Your task to perform on an android device: Go to Yahoo.com Image 0: 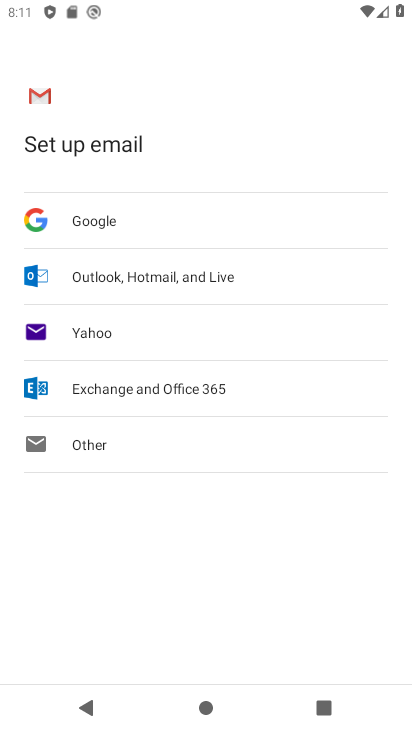
Step 0: press home button
Your task to perform on an android device: Go to Yahoo.com Image 1: 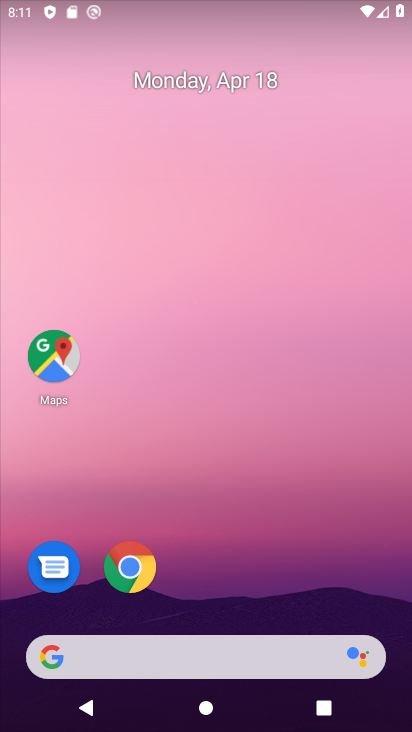
Step 1: drag from (262, 567) to (282, 80)
Your task to perform on an android device: Go to Yahoo.com Image 2: 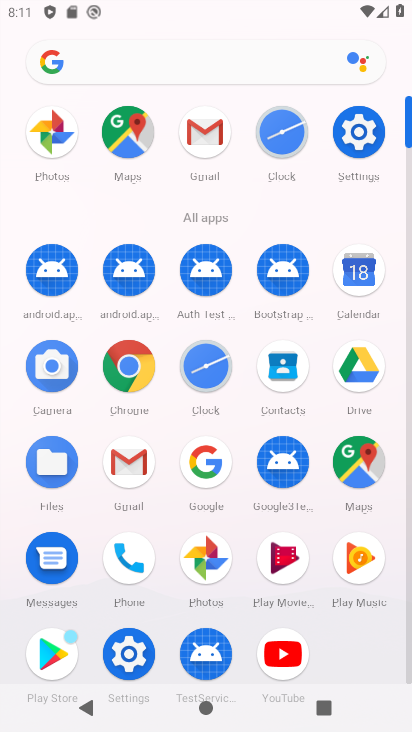
Step 2: click (127, 373)
Your task to perform on an android device: Go to Yahoo.com Image 3: 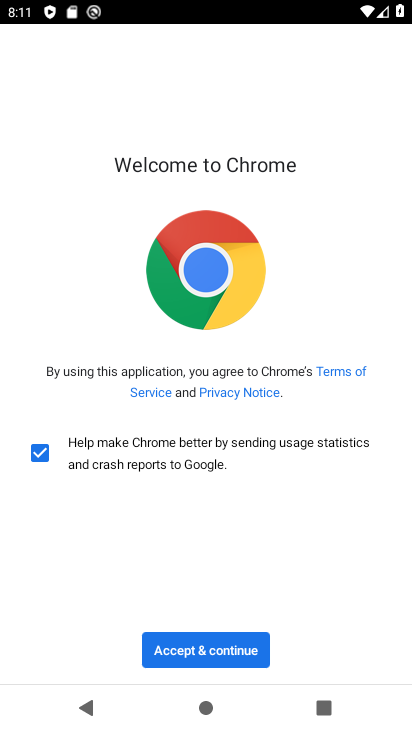
Step 3: click (207, 655)
Your task to perform on an android device: Go to Yahoo.com Image 4: 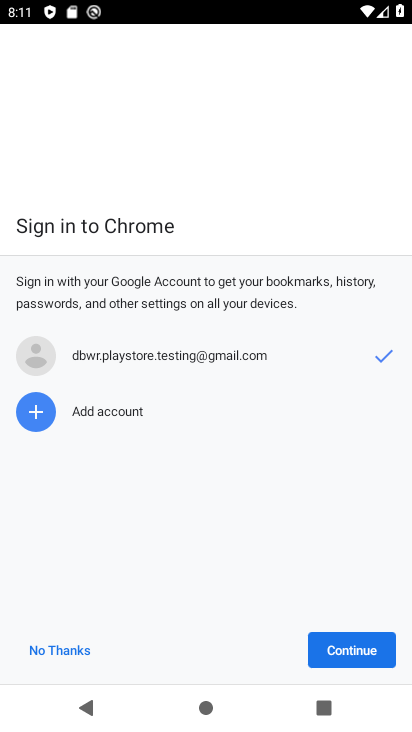
Step 4: click (365, 653)
Your task to perform on an android device: Go to Yahoo.com Image 5: 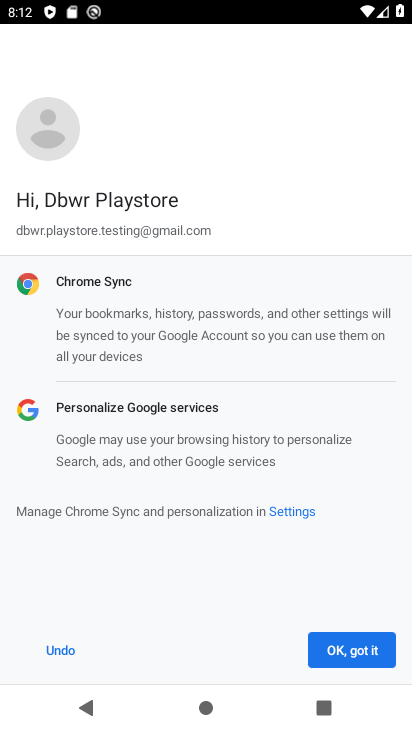
Step 5: click (363, 641)
Your task to perform on an android device: Go to Yahoo.com Image 6: 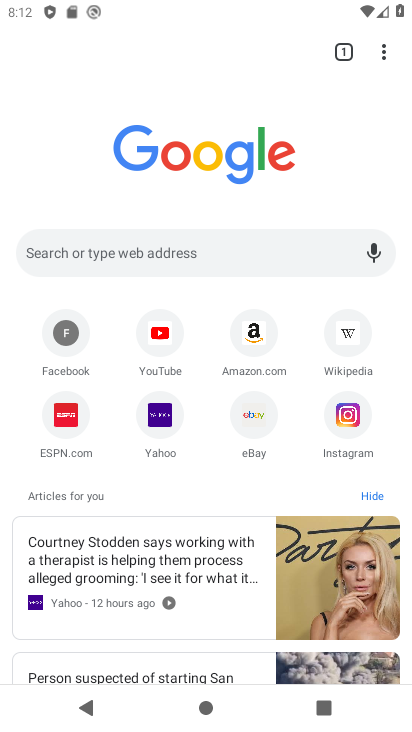
Step 6: click (161, 419)
Your task to perform on an android device: Go to Yahoo.com Image 7: 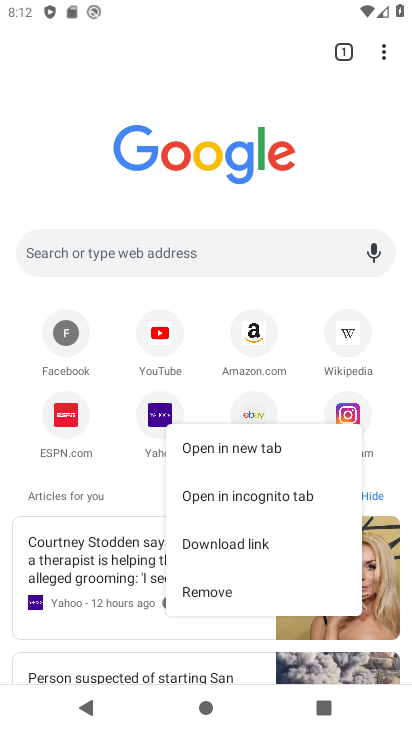
Step 7: click (162, 419)
Your task to perform on an android device: Go to Yahoo.com Image 8: 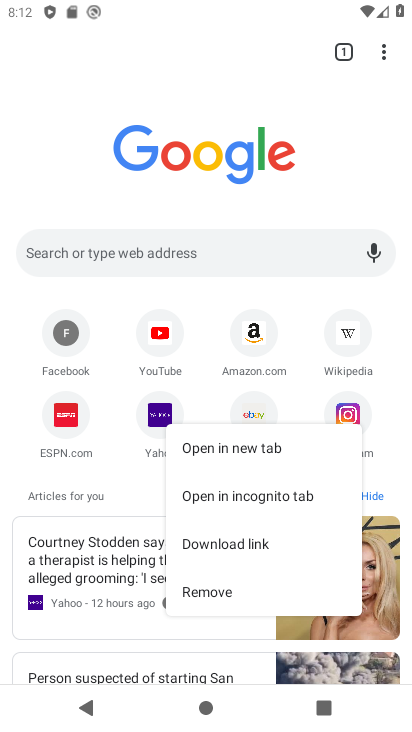
Step 8: click (150, 422)
Your task to perform on an android device: Go to Yahoo.com Image 9: 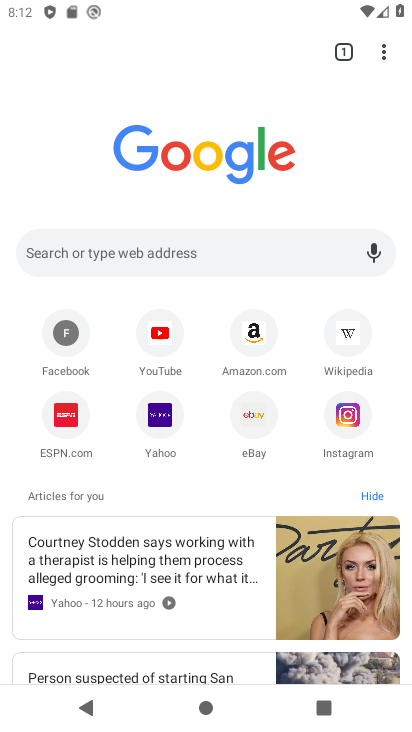
Step 9: click (156, 421)
Your task to perform on an android device: Go to Yahoo.com Image 10: 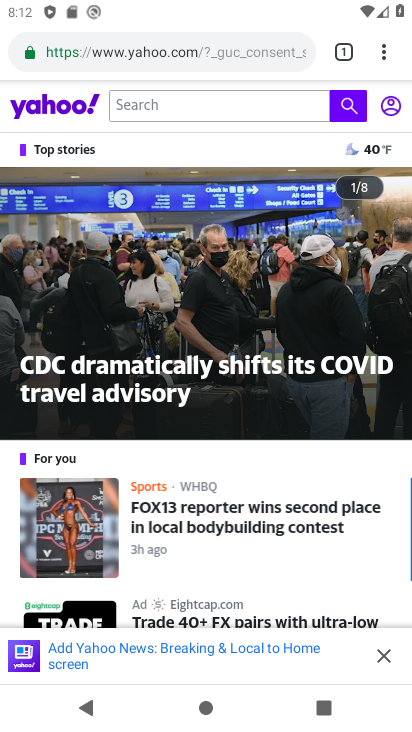
Step 10: task complete